Your task to perform on an android device: Is it going to rain this weekend? Image 0: 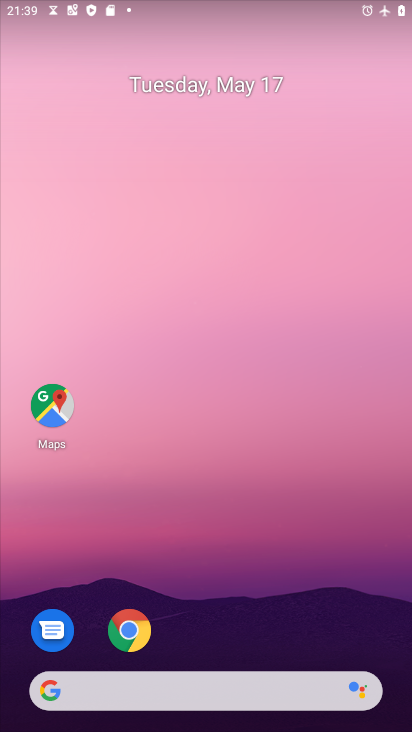
Step 0: click (134, 632)
Your task to perform on an android device: Is it going to rain this weekend? Image 1: 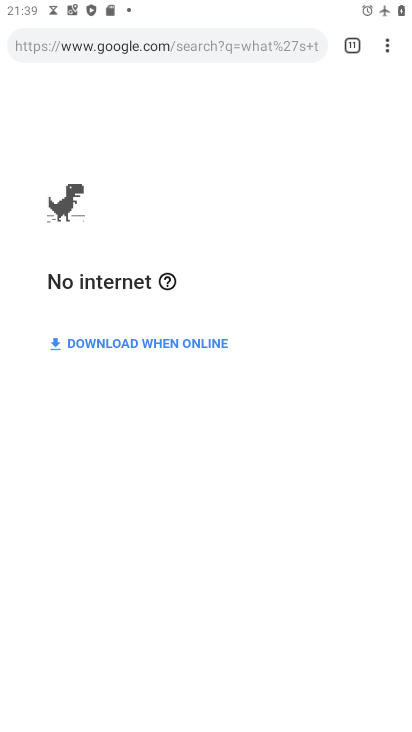
Step 1: click (353, 52)
Your task to perform on an android device: Is it going to rain this weekend? Image 2: 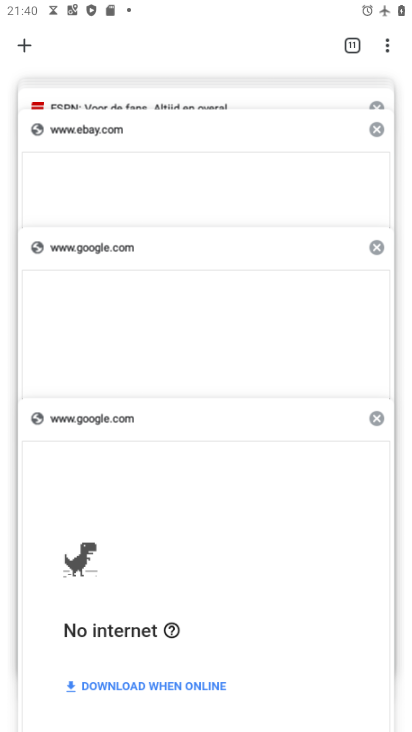
Step 2: click (15, 45)
Your task to perform on an android device: Is it going to rain this weekend? Image 3: 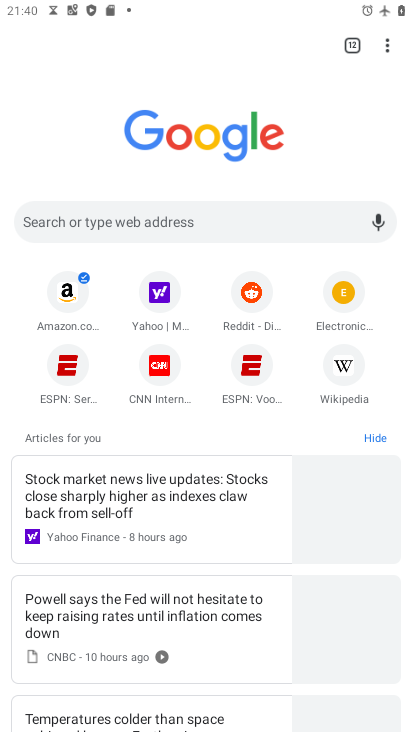
Step 3: click (97, 230)
Your task to perform on an android device: Is it going to rain this weekend? Image 4: 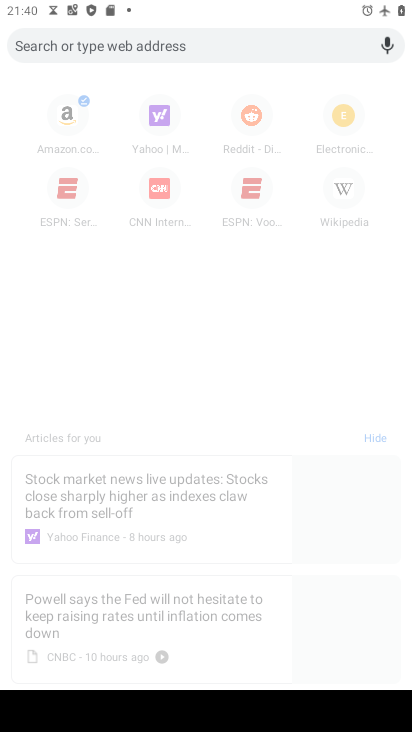
Step 4: press back button
Your task to perform on an android device: Is it going to rain this weekend? Image 5: 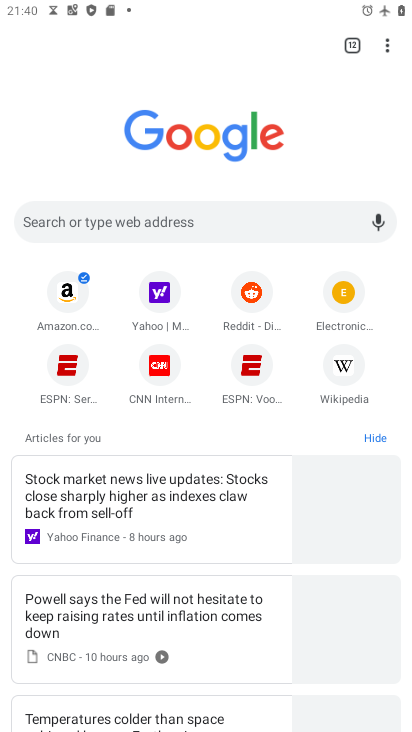
Step 5: click (354, 43)
Your task to perform on an android device: Is it going to rain this weekend? Image 6: 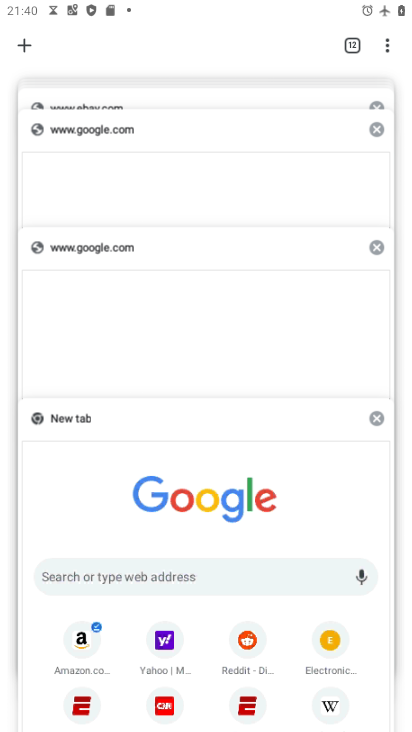
Step 6: click (146, 195)
Your task to perform on an android device: Is it going to rain this weekend? Image 7: 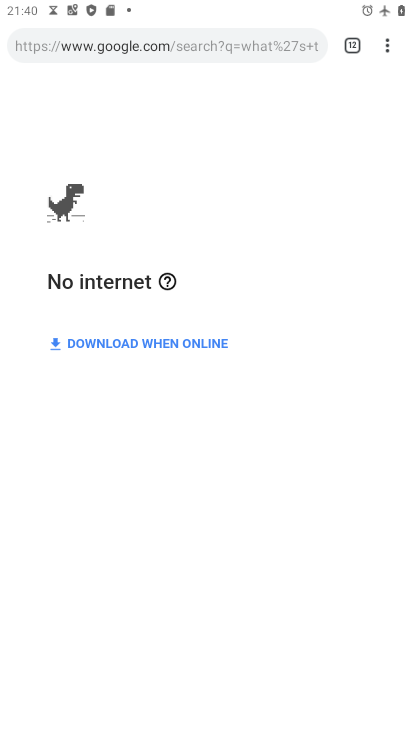
Step 7: click (350, 37)
Your task to perform on an android device: Is it going to rain this weekend? Image 8: 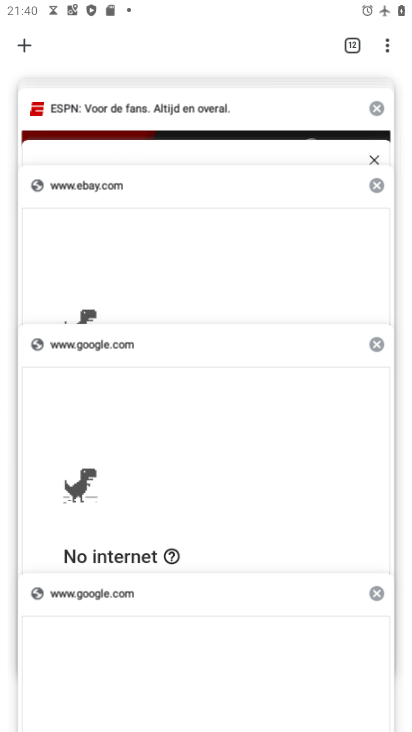
Step 8: drag from (160, 99) to (145, 511)
Your task to perform on an android device: Is it going to rain this weekend? Image 9: 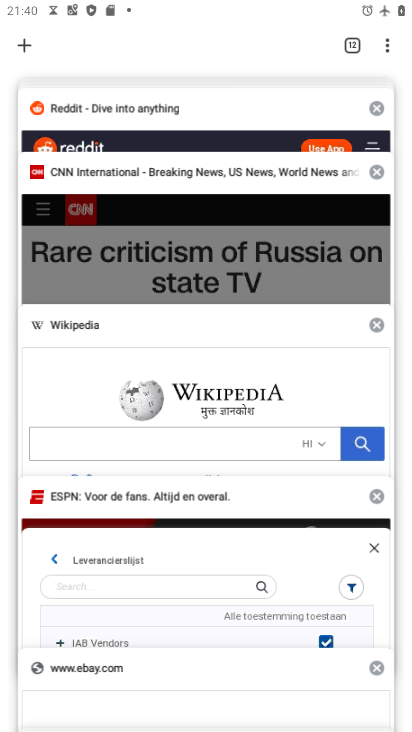
Step 9: drag from (161, 157) to (143, 513)
Your task to perform on an android device: Is it going to rain this weekend? Image 10: 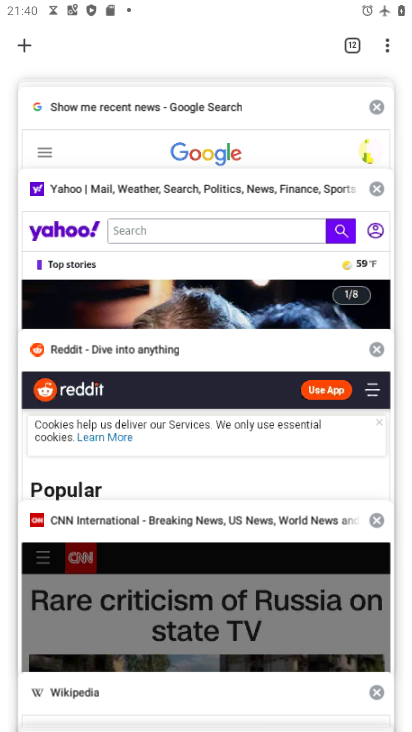
Step 10: drag from (158, 176) to (134, 439)
Your task to perform on an android device: Is it going to rain this weekend? Image 11: 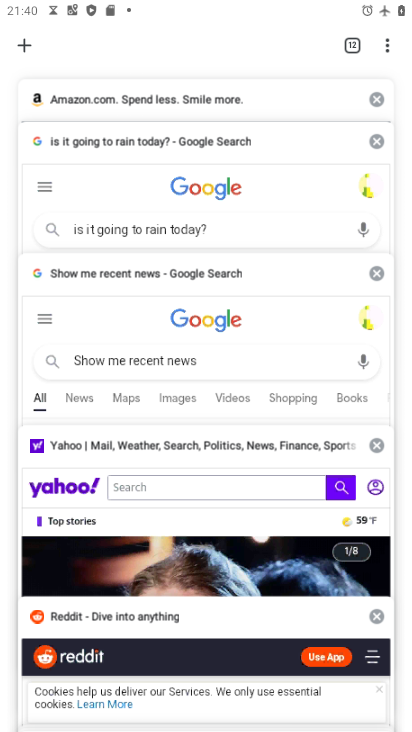
Step 11: click (22, 43)
Your task to perform on an android device: Is it going to rain this weekend? Image 12: 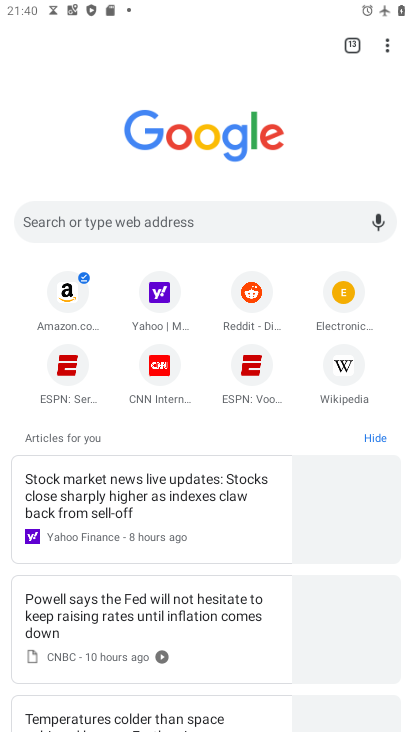
Step 12: click (78, 236)
Your task to perform on an android device: Is it going to rain this weekend? Image 13: 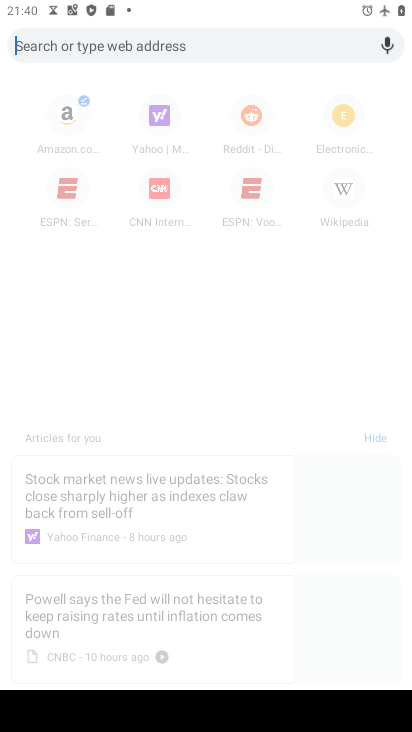
Step 13: type "is it going to rain this weekend?"
Your task to perform on an android device: Is it going to rain this weekend? Image 14: 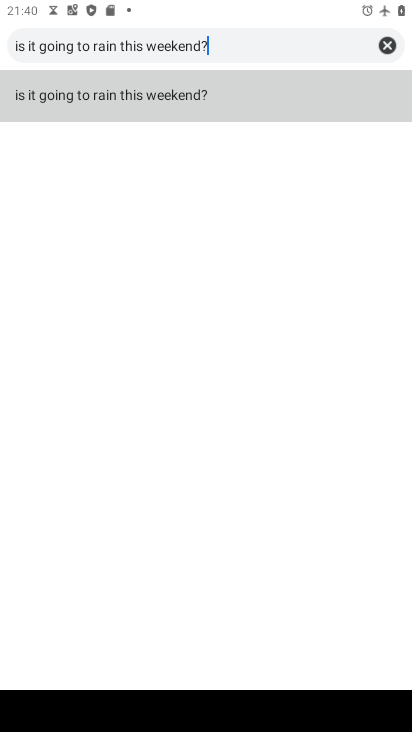
Step 14: click (69, 89)
Your task to perform on an android device: Is it going to rain this weekend? Image 15: 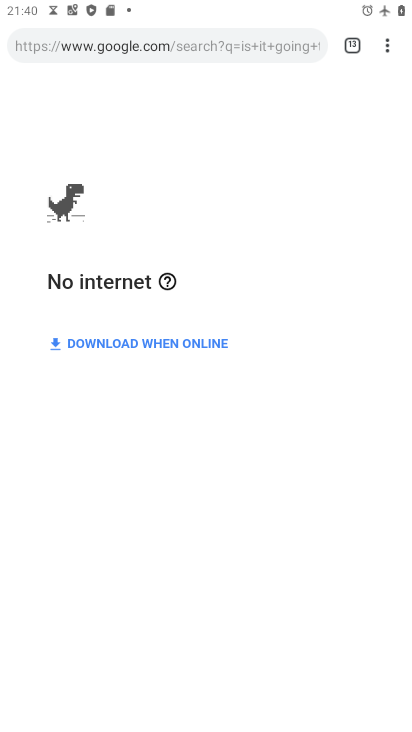
Step 15: click (163, 595)
Your task to perform on an android device: Is it going to rain this weekend? Image 16: 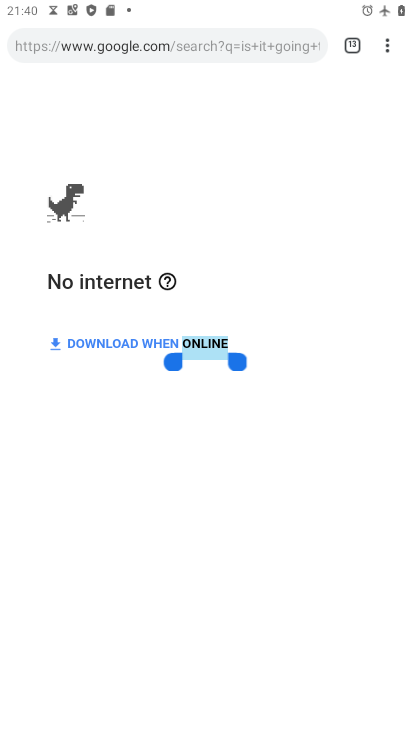
Step 16: task complete